Your task to perform on an android device: Search for hotels in Seattle Image 0: 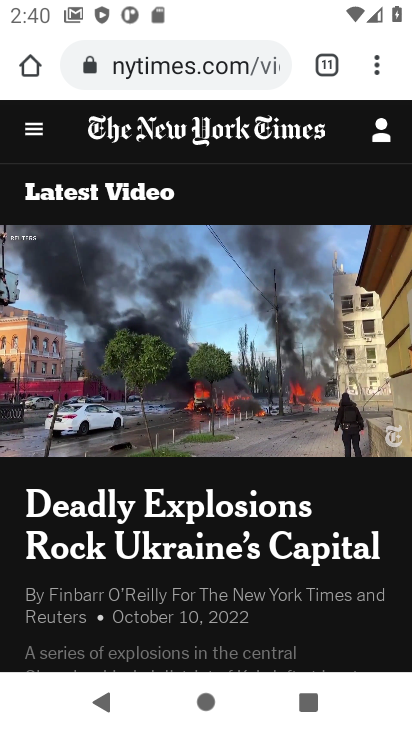
Step 0: press home button
Your task to perform on an android device: Search for hotels in Seattle Image 1: 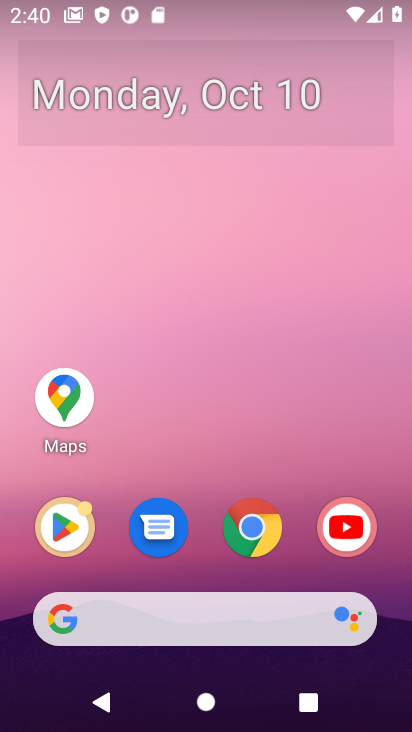
Step 1: click (192, 610)
Your task to perform on an android device: Search for hotels in Seattle Image 2: 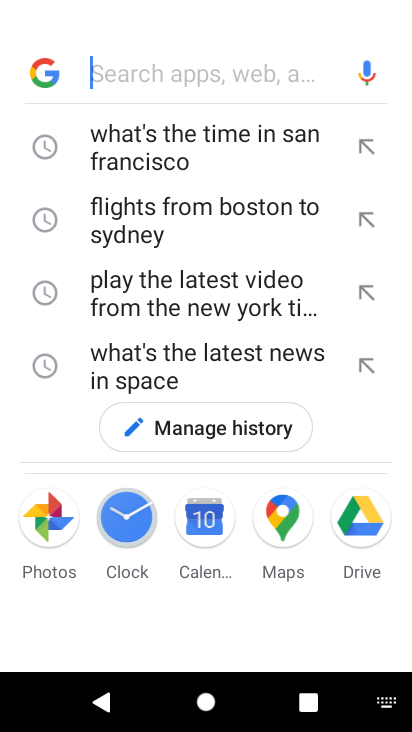
Step 2: type "hotels in Seattle"
Your task to perform on an android device: Search for hotels in Seattle Image 3: 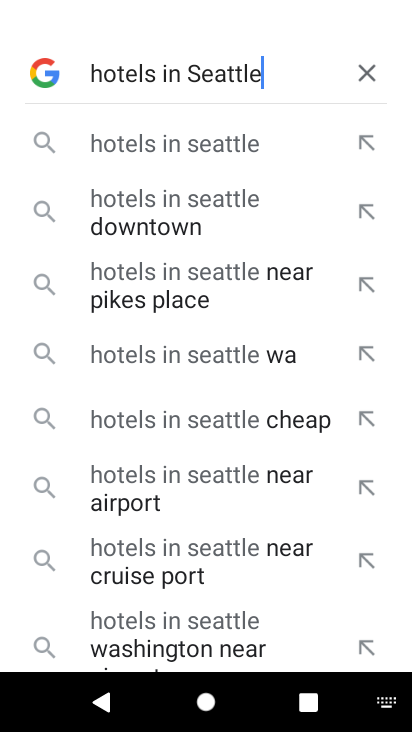
Step 3: press enter
Your task to perform on an android device: Search for hotels in Seattle Image 4: 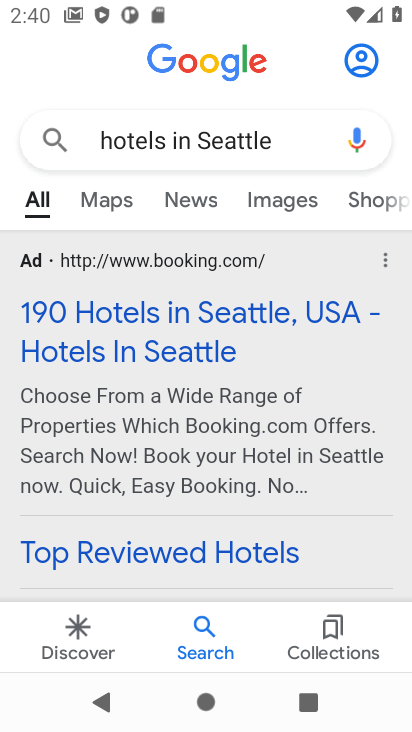
Step 4: click (205, 344)
Your task to perform on an android device: Search for hotels in Seattle Image 5: 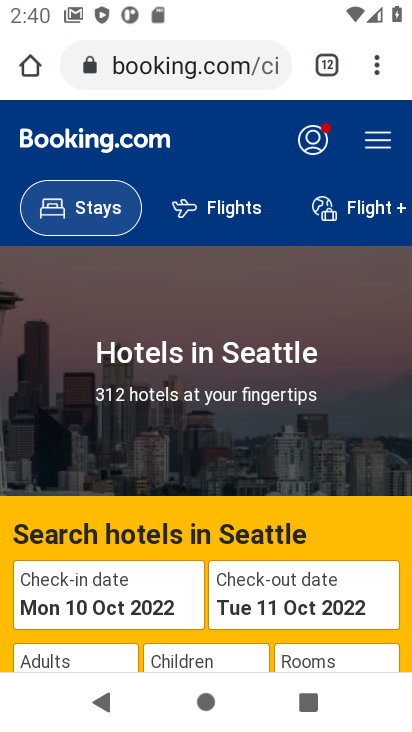
Step 5: drag from (233, 494) to (249, 371)
Your task to perform on an android device: Search for hotels in Seattle Image 6: 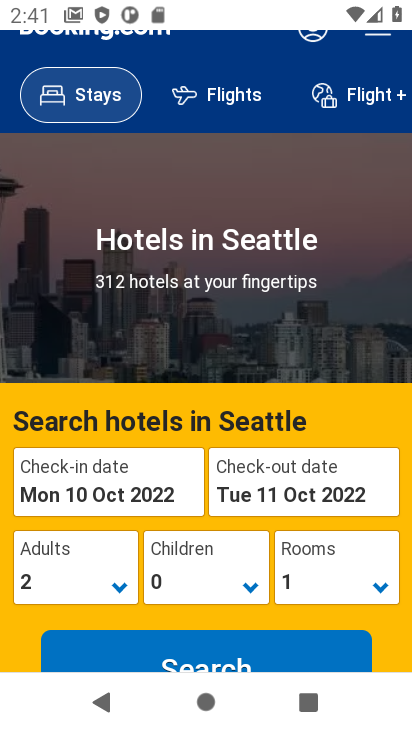
Step 6: drag from (275, 535) to (304, 418)
Your task to perform on an android device: Search for hotels in Seattle Image 7: 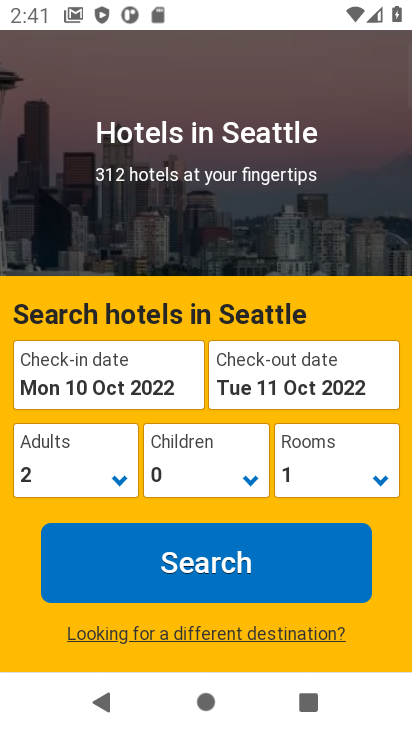
Step 7: click (267, 566)
Your task to perform on an android device: Search for hotels in Seattle Image 8: 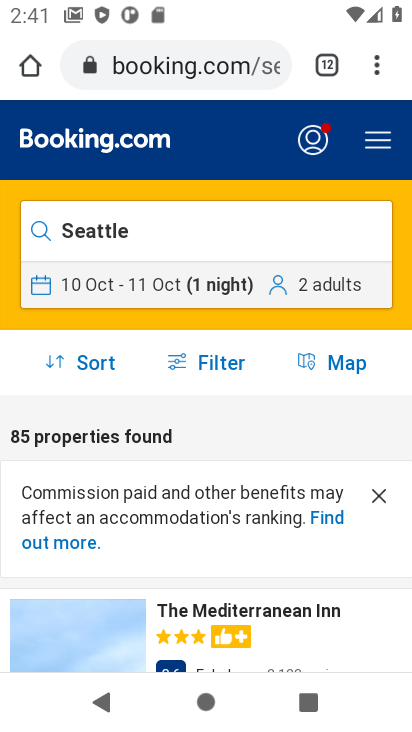
Step 8: drag from (311, 607) to (309, 506)
Your task to perform on an android device: Search for hotels in Seattle Image 9: 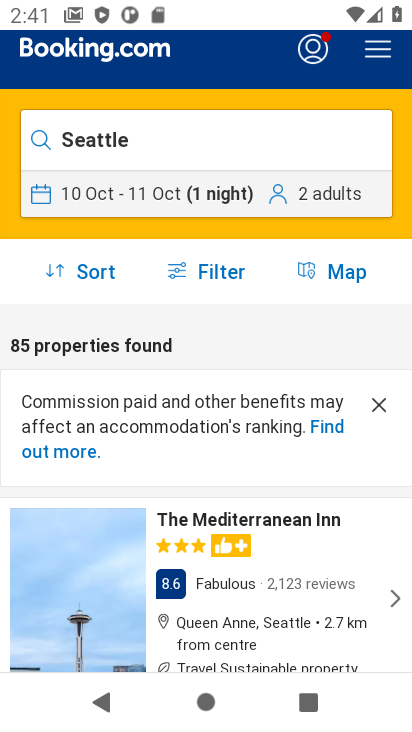
Step 9: click (379, 402)
Your task to perform on an android device: Search for hotels in Seattle Image 10: 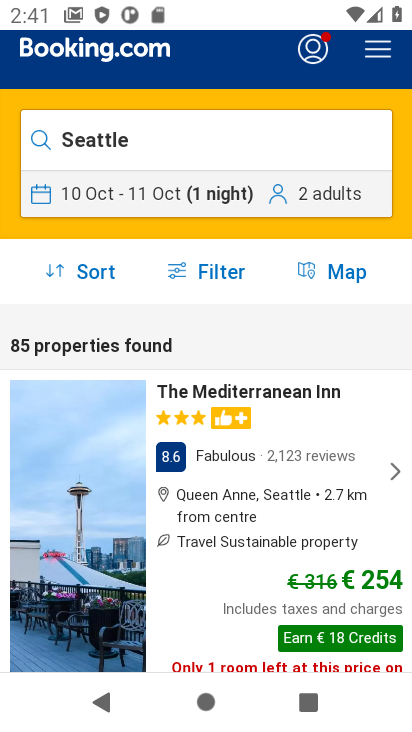
Step 10: task complete